Your task to perform on an android device: delete browsing data in the chrome app Image 0: 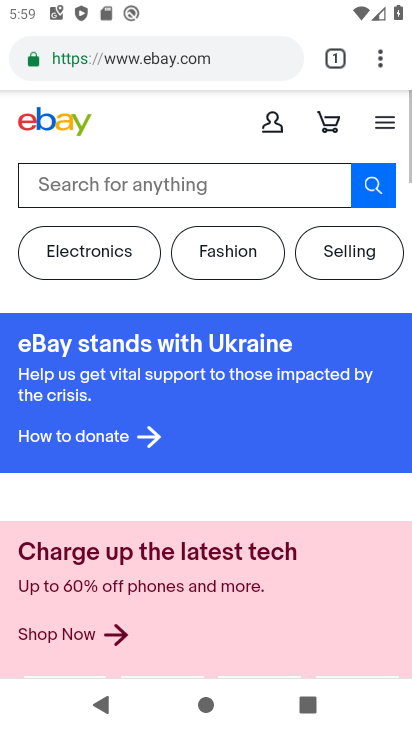
Step 0: press home button
Your task to perform on an android device: delete browsing data in the chrome app Image 1: 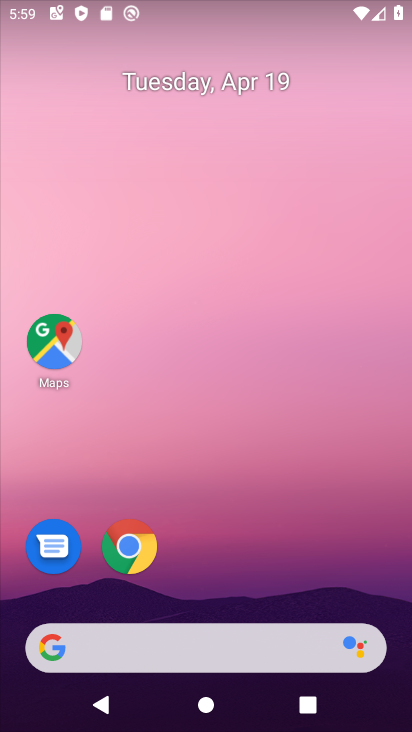
Step 1: drag from (275, 127) to (285, 39)
Your task to perform on an android device: delete browsing data in the chrome app Image 2: 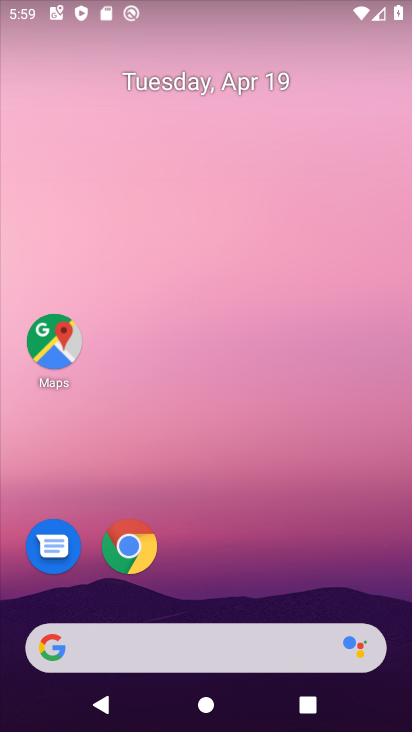
Step 2: drag from (261, 483) to (267, 9)
Your task to perform on an android device: delete browsing data in the chrome app Image 3: 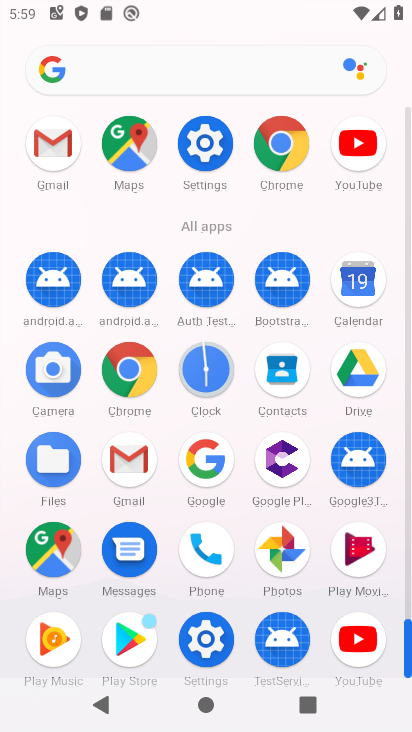
Step 3: click (130, 366)
Your task to perform on an android device: delete browsing data in the chrome app Image 4: 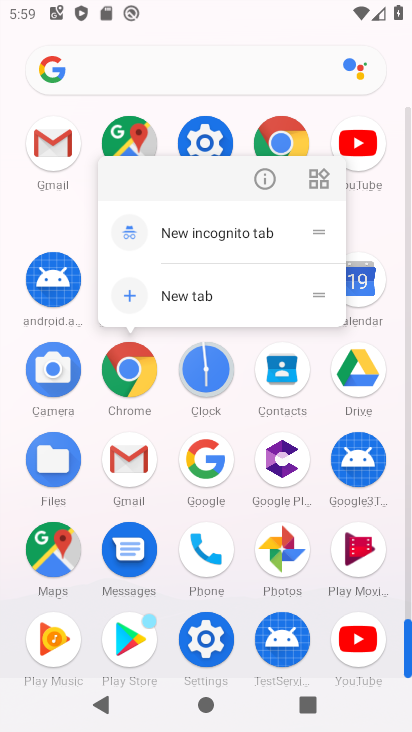
Step 4: click (131, 379)
Your task to perform on an android device: delete browsing data in the chrome app Image 5: 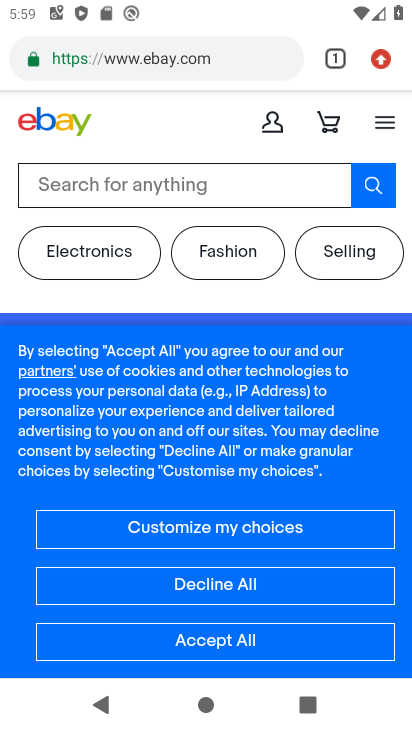
Step 5: drag from (396, 54) to (187, 405)
Your task to perform on an android device: delete browsing data in the chrome app Image 6: 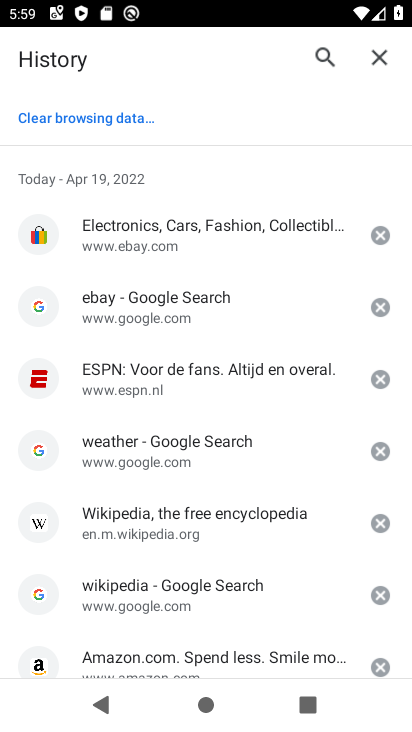
Step 6: click (88, 118)
Your task to perform on an android device: delete browsing data in the chrome app Image 7: 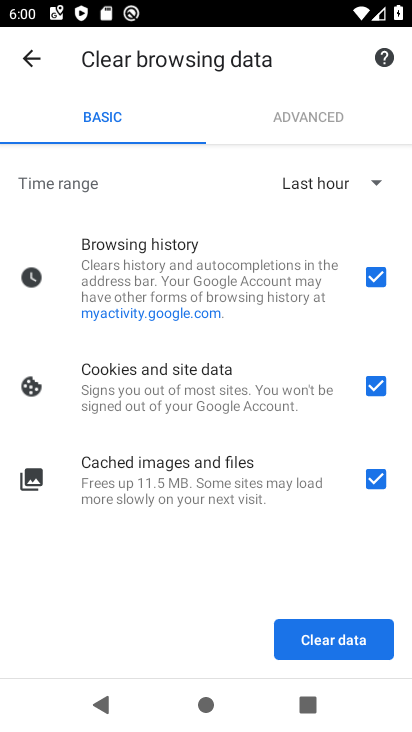
Step 7: click (340, 638)
Your task to perform on an android device: delete browsing data in the chrome app Image 8: 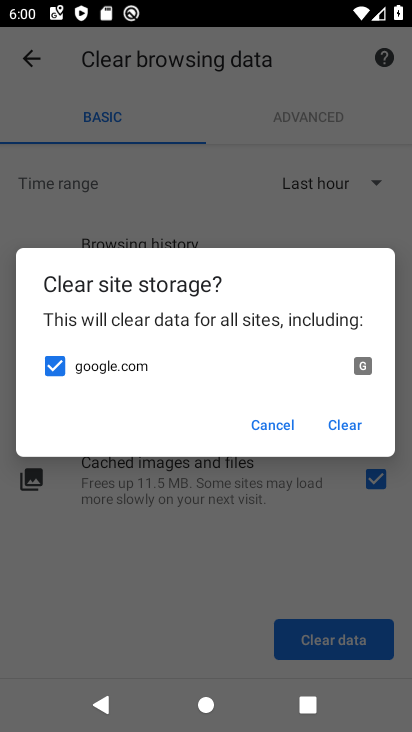
Step 8: click (347, 425)
Your task to perform on an android device: delete browsing data in the chrome app Image 9: 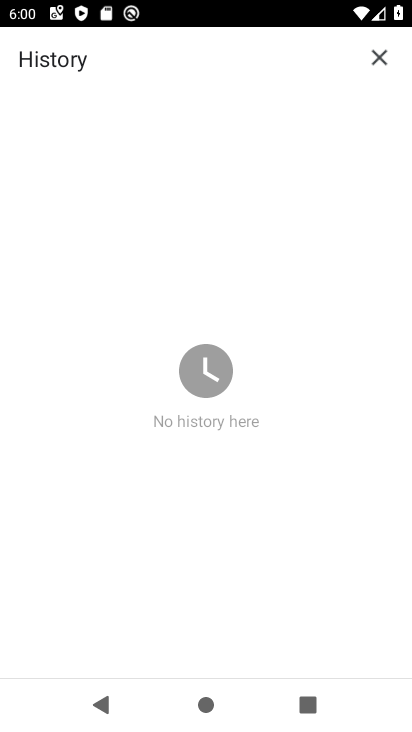
Step 9: task complete